Your task to perform on an android device: Go to eBay Image 0: 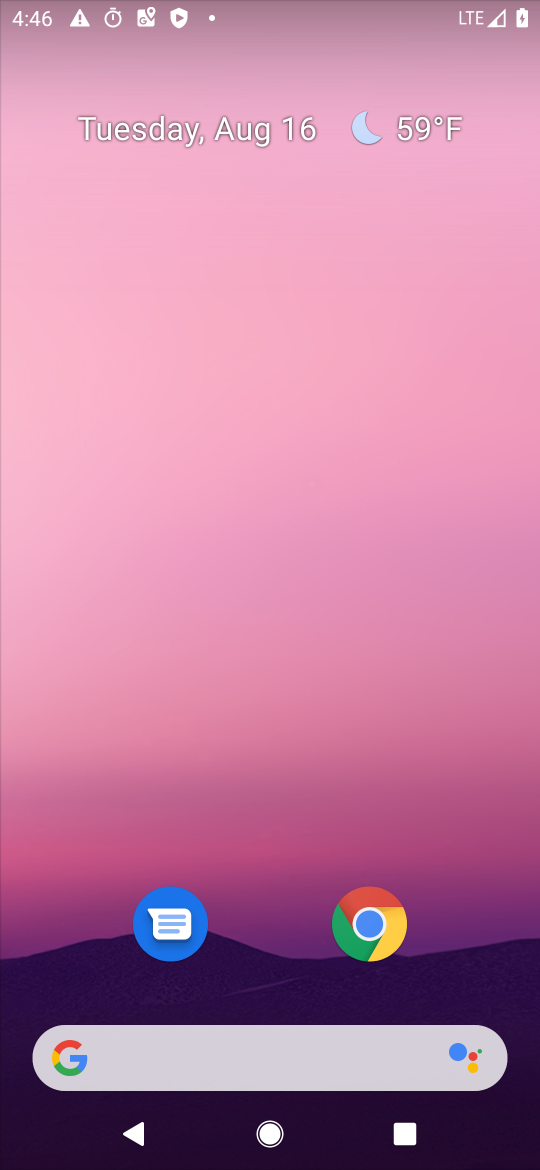
Step 0: click (372, 933)
Your task to perform on an android device: Go to eBay Image 1: 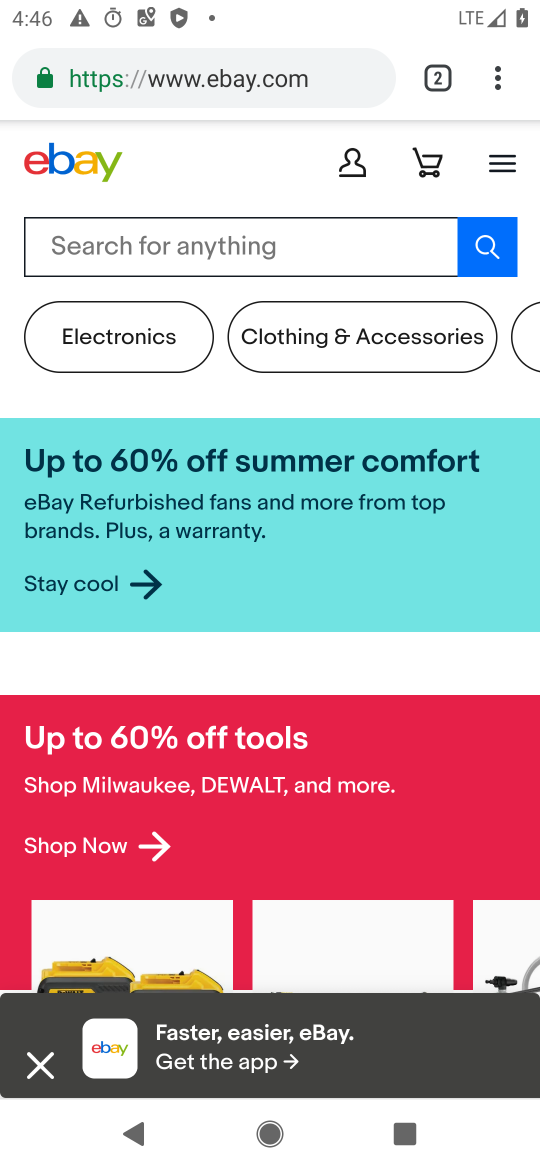
Step 1: task complete